Your task to perform on an android device: turn off notifications in google photos Image 0: 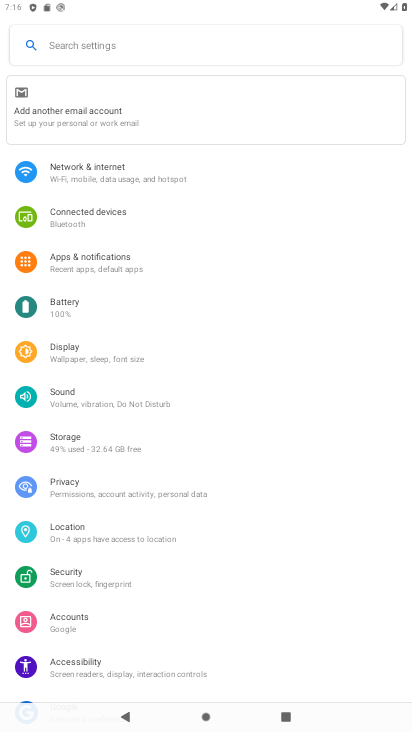
Step 0: press home button
Your task to perform on an android device: turn off notifications in google photos Image 1: 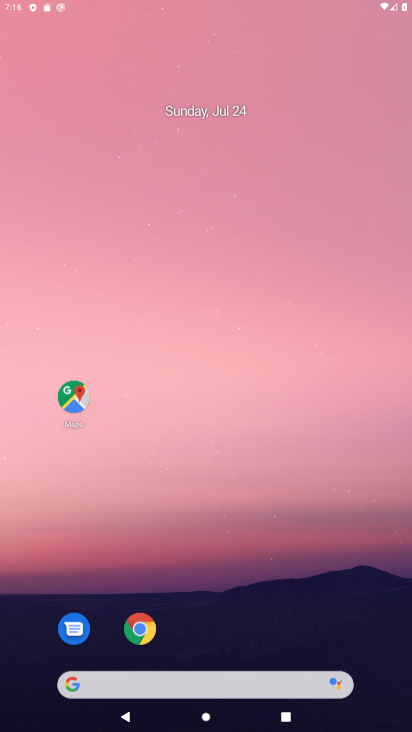
Step 1: drag from (409, 691) to (239, 30)
Your task to perform on an android device: turn off notifications in google photos Image 2: 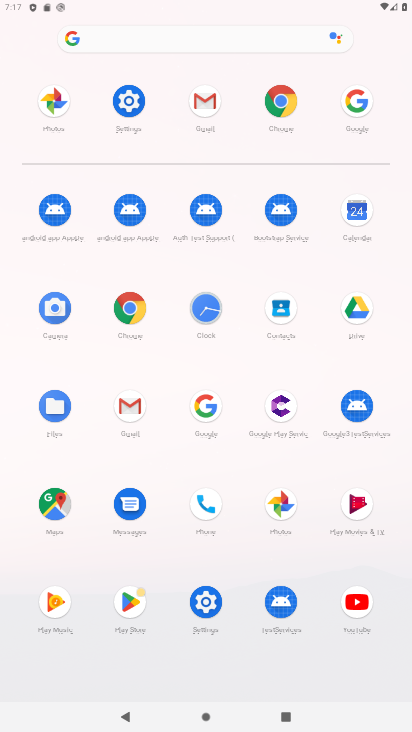
Step 2: click (291, 510)
Your task to perform on an android device: turn off notifications in google photos Image 3: 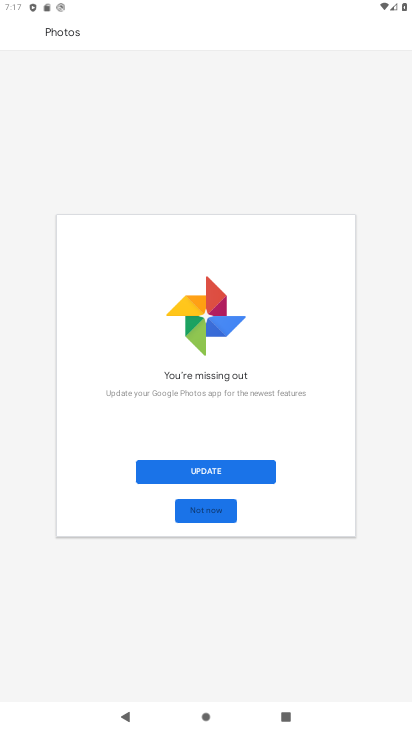
Step 3: click (199, 468)
Your task to perform on an android device: turn off notifications in google photos Image 4: 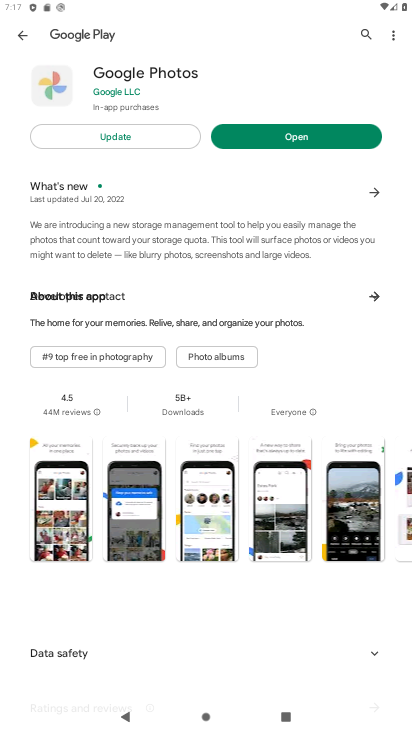
Step 4: click (91, 123)
Your task to perform on an android device: turn off notifications in google photos Image 5: 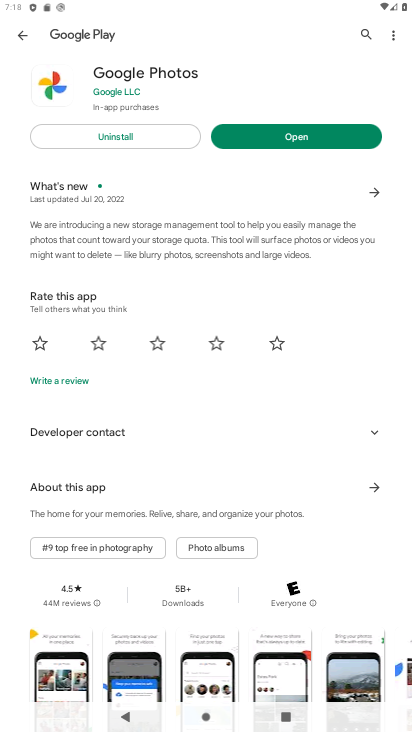
Step 5: click (331, 123)
Your task to perform on an android device: turn off notifications in google photos Image 6: 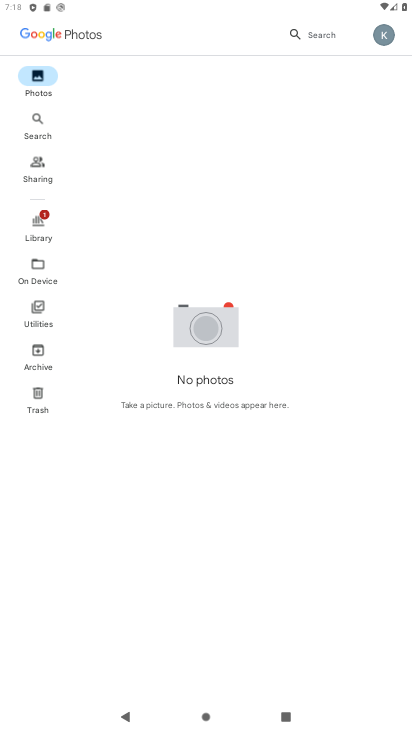
Step 6: click (382, 39)
Your task to perform on an android device: turn off notifications in google photos Image 7: 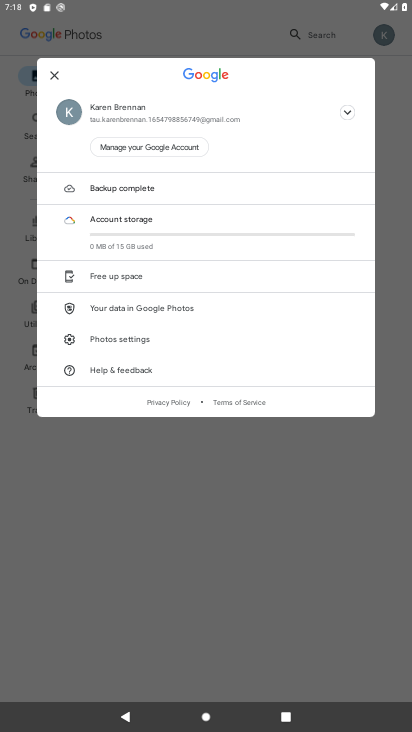
Step 7: click (107, 345)
Your task to perform on an android device: turn off notifications in google photos Image 8: 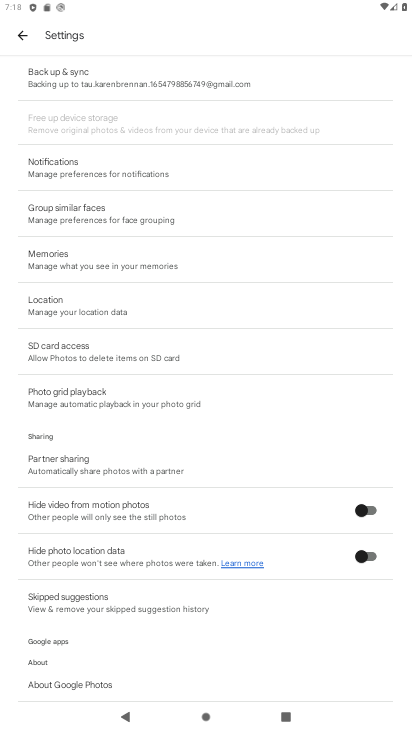
Step 8: click (65, 169)
Your task to perform on an android device: turn off notifications in google photos Image 9: 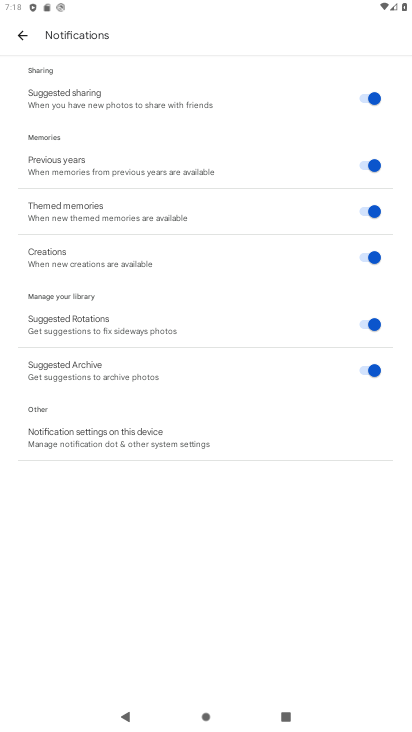
Step 9: click (316, 86)
Your task to perform on an android device: turn off notifications in google photos Image 10: 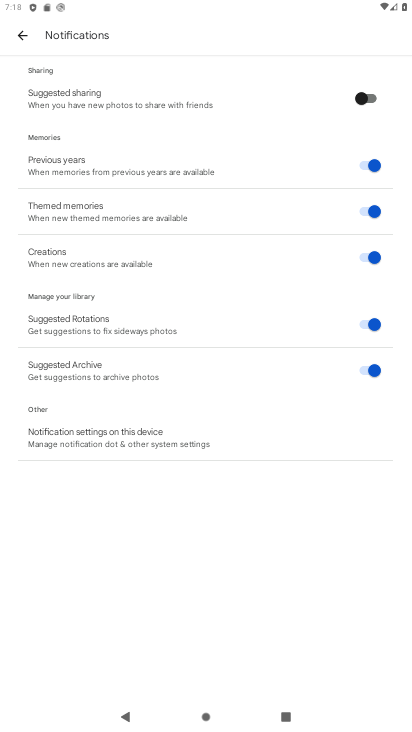
Step 10: task complete